Your task to perform on an android device: snooze an email in the gmail app Image 0: 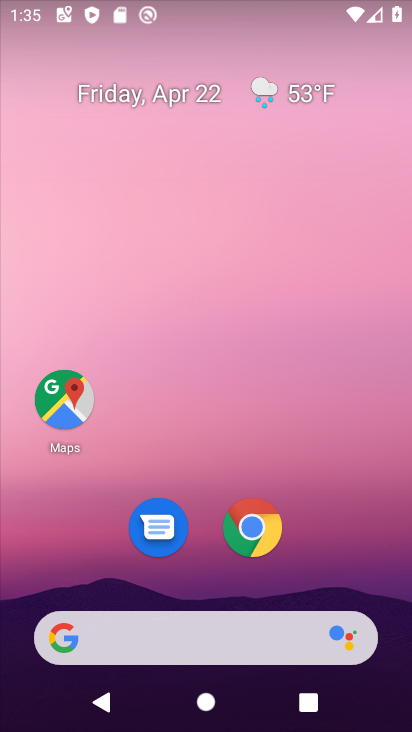
Step 0: drag from (339, 537) to (286, 11)
Your task to perform on an android device: snooze an email in the gmail app Image 1: 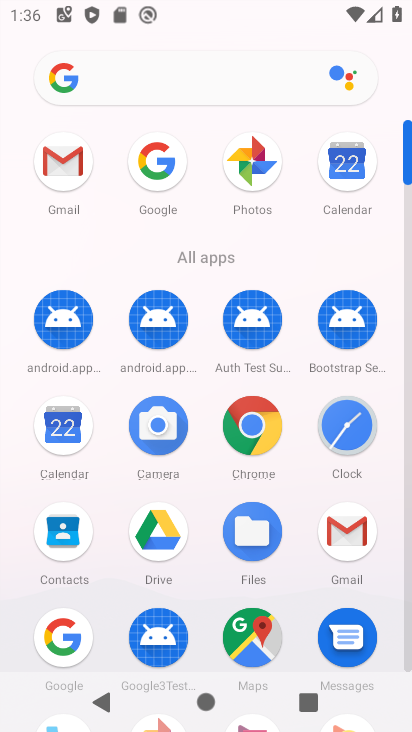
Step 1: drag from (199, 264) to (209, 75)
Your task to perform on an android device: snooze an email in the gmail app Image 2: 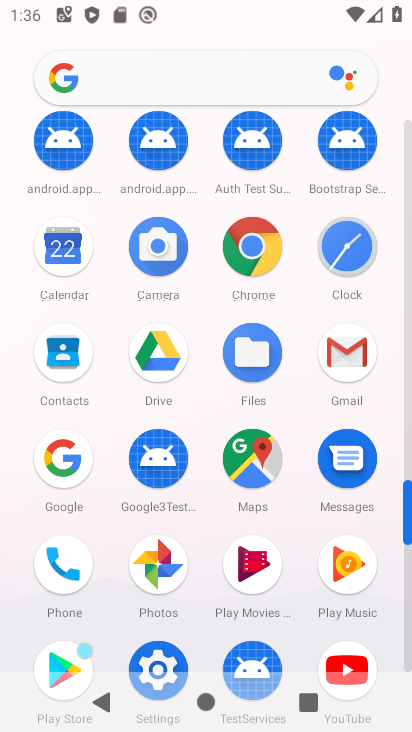
Step 2: drag from (207, 532) to (197, 254)
Your task to perform on an android device: snooze an email in the gmail app Image 3: 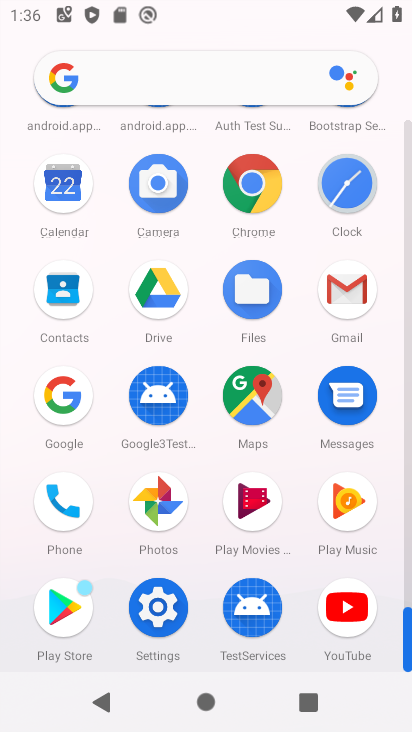
Step 3: drag from (203, 629) to (195, 423)
Your task to perform on an android device: snooze an email in the gmail app Image 4: 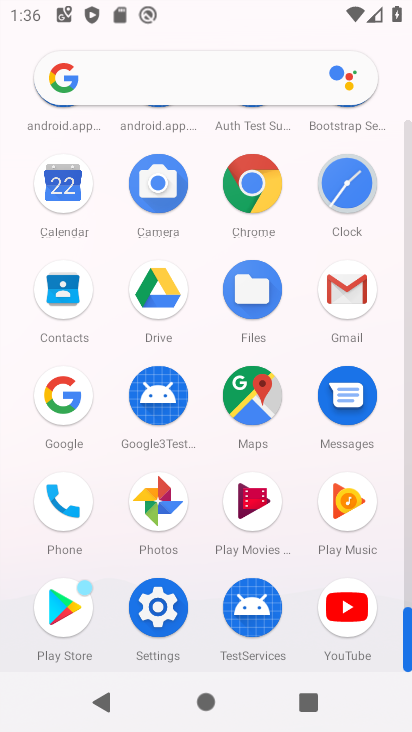
Step 4: click (191, 563)
Your task to perform on an android device: snooze an email in the gmail app Image 5: 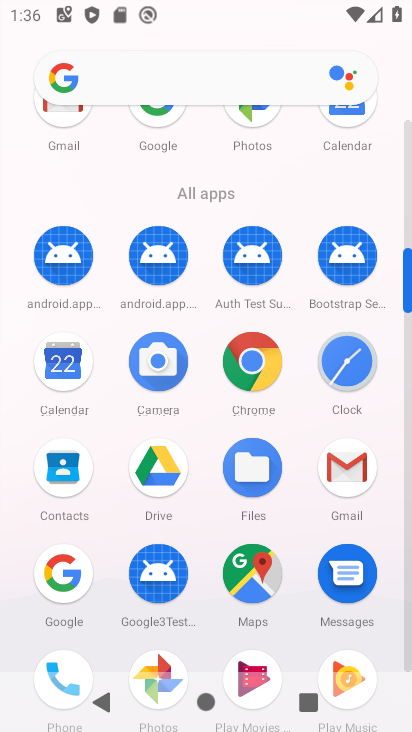
Step 5: click (350, 460)
Your task to perform on an android device: snooze an email in the gmail app Image 6: 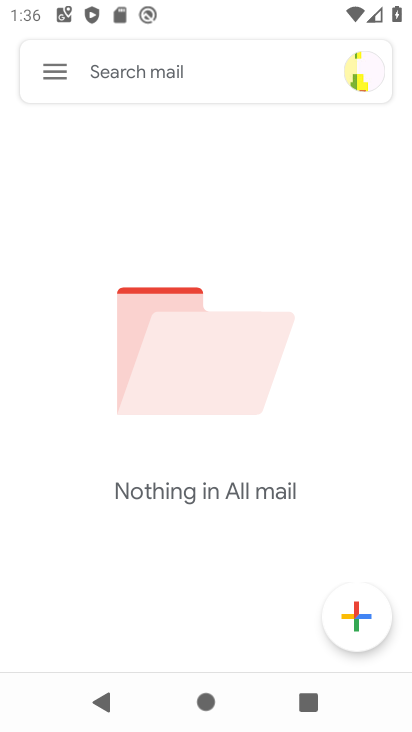
Step 6: click (47, 67)
Your task to perform on an android device: snooze an email in the gmail app Image 7: 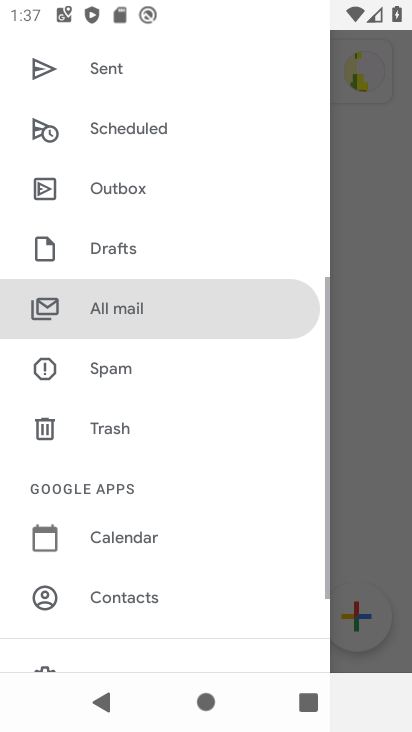
Step 7: click (124, 324)
Your task to perform on an android device: snooze an email in the gmail app Image 8: 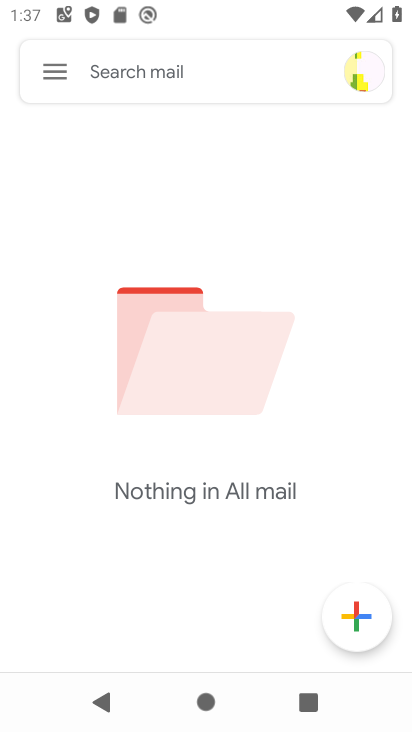
Step 8: task complete